Your task to perform on an android device: turn on bluetooth scan Image 0: 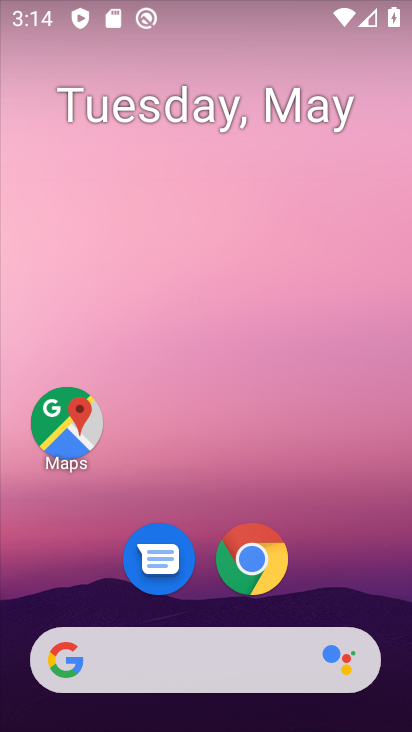
Step 0: drag from (344, 534) to (291, 10)
Your task to perform on an android device: turn on bluetooth scan Image 1: 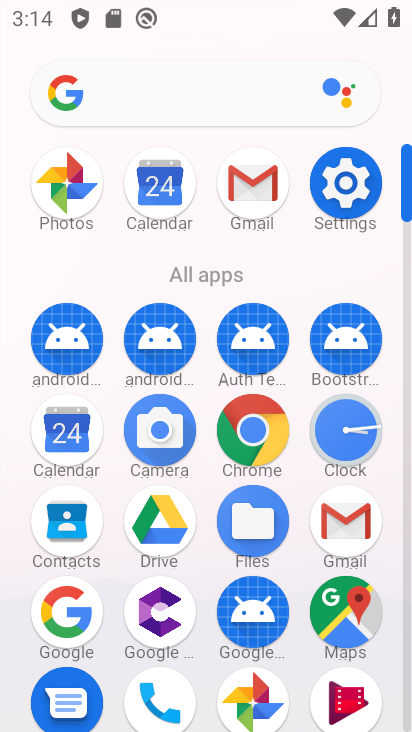
Step 1: click (346, 181)
Your task to perform on an android device: turn on bluetooth scan Image 2: 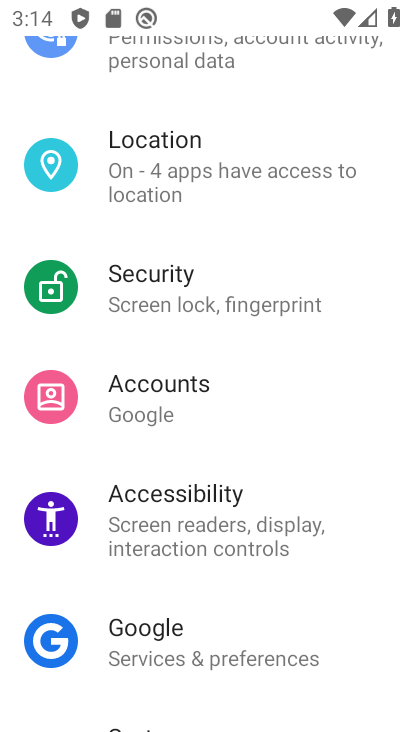
Step 2: drag from (224, 335) to (220, 439)
Your task to perform on an android device: turn on bluetooth scan Image 3: 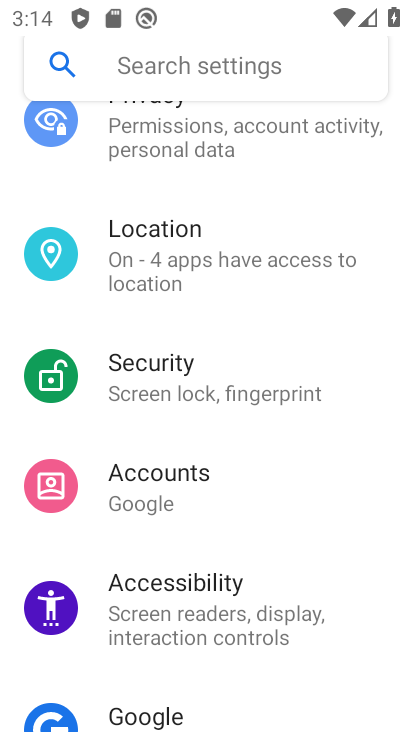
Step 3: drag from (236, 304) to (222, 428)
Your task to perform on an android device: turn on bluetooth scan Image 4: 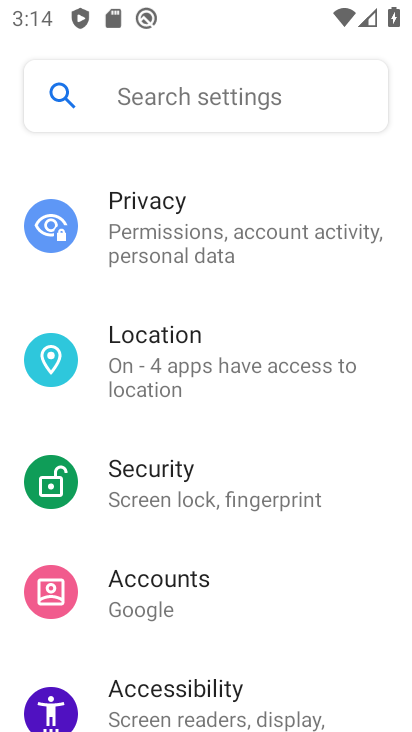
Step 4: drag from (234, 290) to (257, 467)
Your task to perform on an android device: turn on bluetooth scan Image 5: 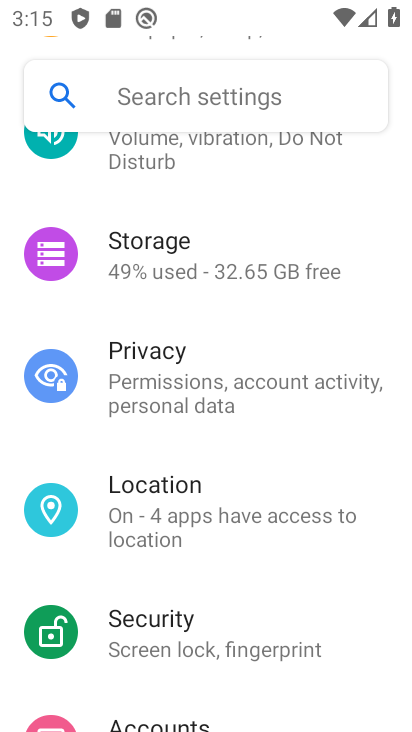
Step 5: drag from (218, 207) to (255, 401)
Your task to perform on an android device: turn on bluetooth scan Image 6: 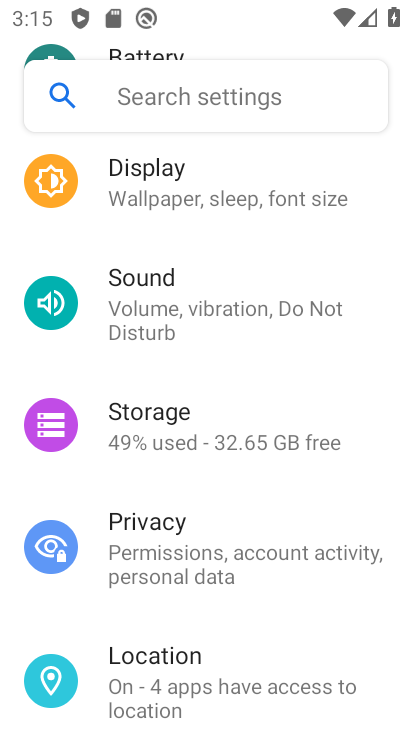
Step 6: drag from (211, 260) to (256, 449)
Your task to perform on an android device: turn on bluetooth scan Image 7: 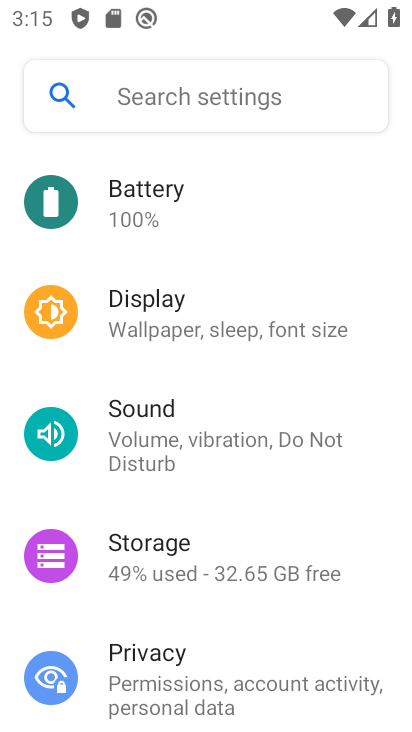
Step 7: drag from (230, 267) to (268, 387)
Your task to perform on an android device: turn on bluetooth scan Image 8: 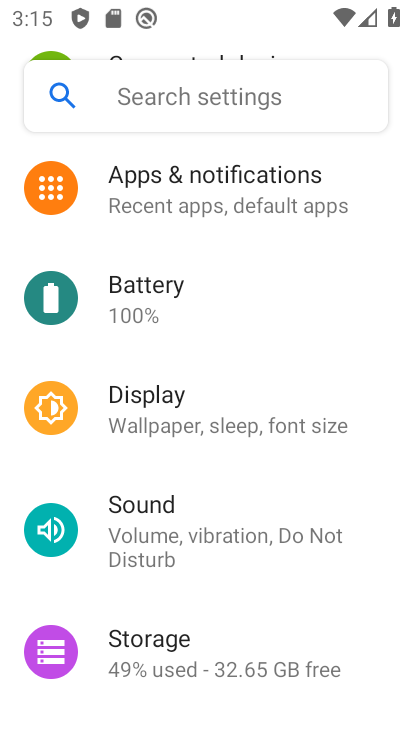
Step 8: drag from (208, 615) to (245, 427)
Your task to perform on an android device: turn on bluetooth scan Image 9: 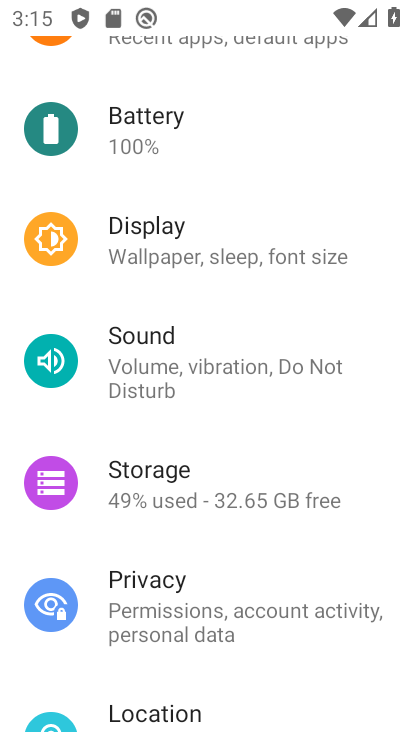
Step 9: drag from (224, 564) to (285, 430)
Your task to perform on an android device: turn on bluetooth scan Image 10: 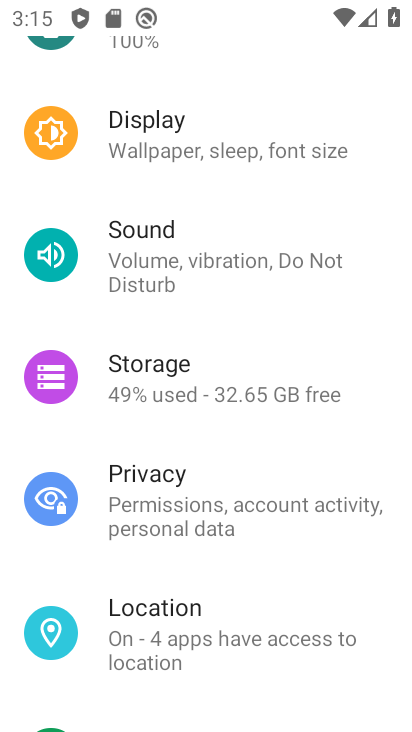
Step 10: click (195, 626)
Your task to perform on an android device: turn on bluetooth scan Image 11: 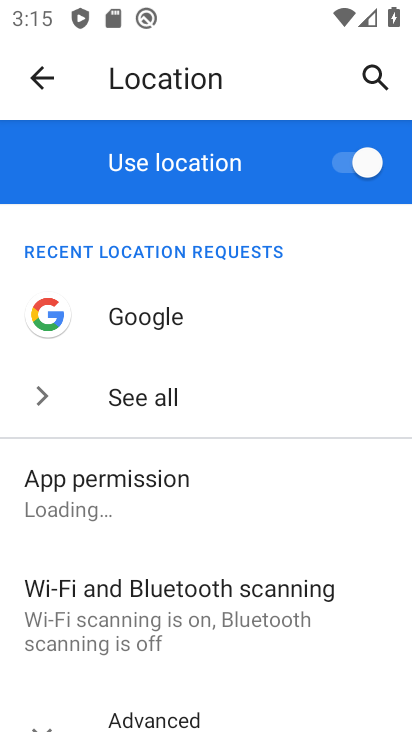
Step 11: click (178, 586)
Your task to perform on an android device: turn on bluetooth scan Image 12: 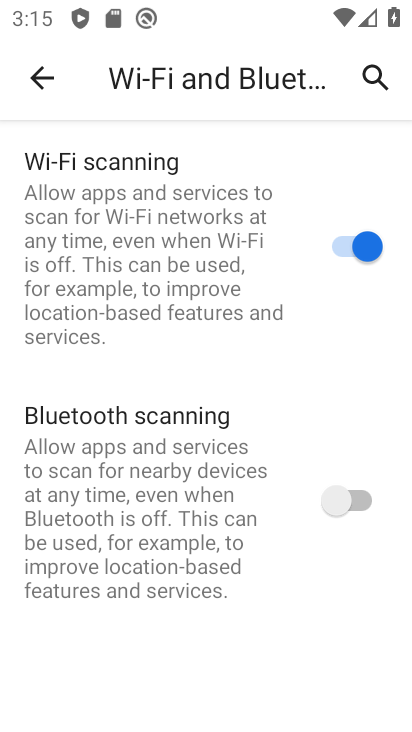
Step 12: click (340, 500)
Your task to perform on an android device: turn on bluetooth scan Image 13: 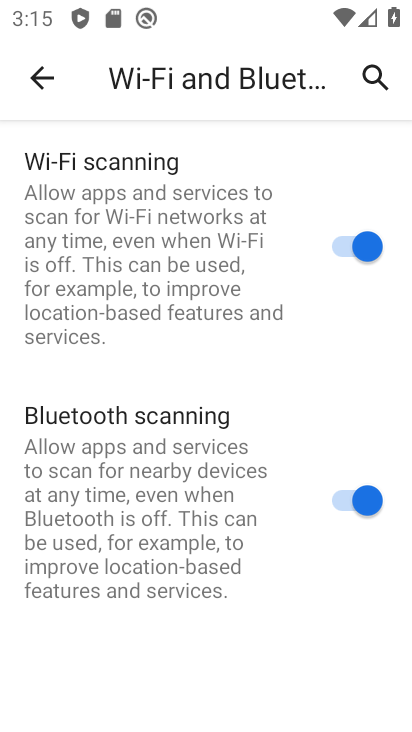
Step 13: task complete